Your task to perform on an android device: toggle pop-ups in chrome Image 0: 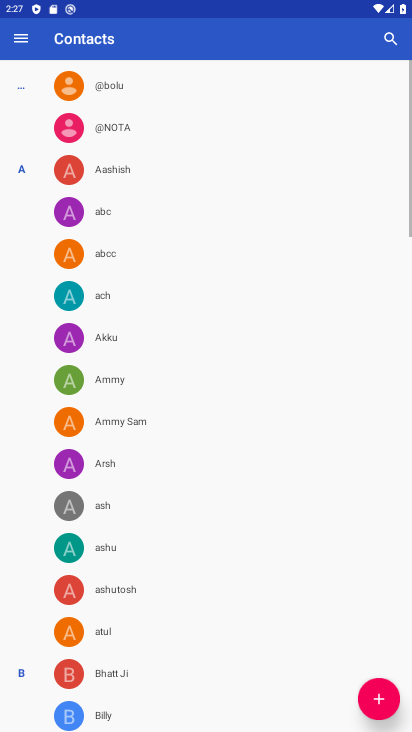
Step 0: press home button
Your task to perform on an android device: toggle pop-ups in chrome Image 1: 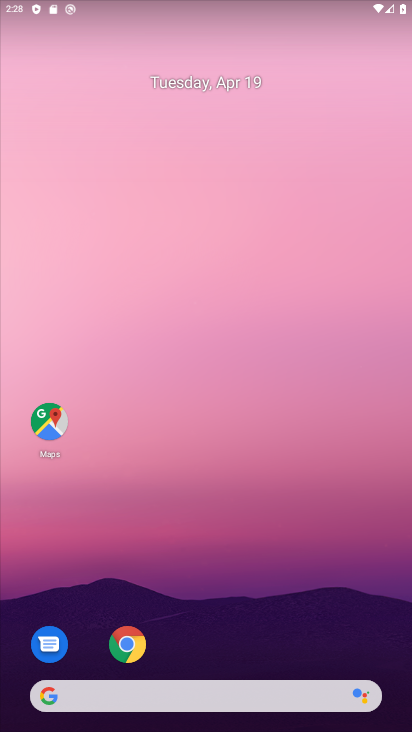
Step 1: drag from (289, 486) to (321, 23)
Your task to perform on an android device: toggle pop-ups in chrome Image 2: 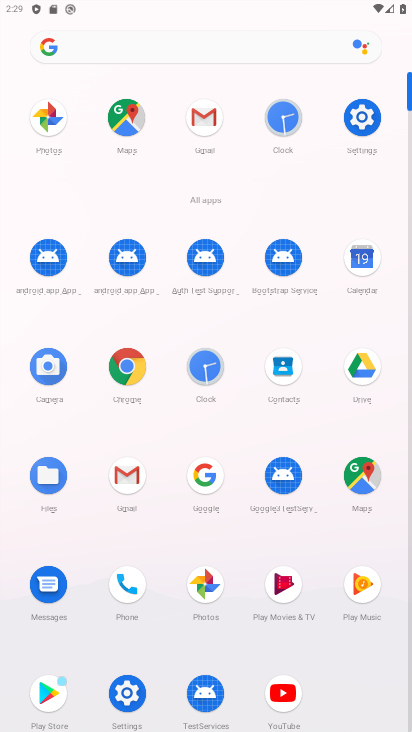
Step 2: click (125, 360)
Your task to perform on an android device: toggle pop-ups in chrome Image 3: 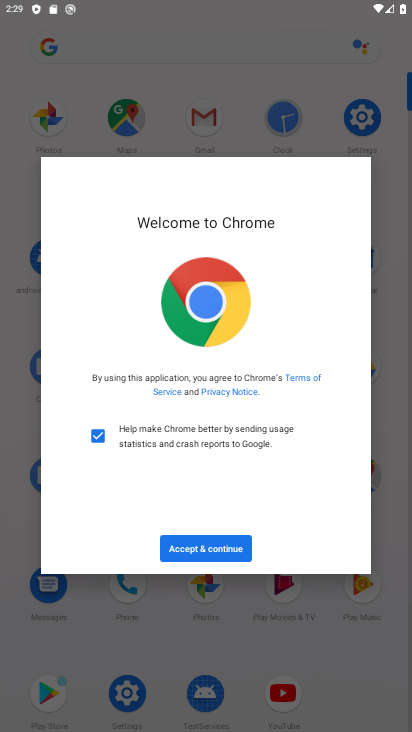
Step 3: click (230, 548)
Your task to perform on an android device: toggle pop-ups in chrome Image 4: 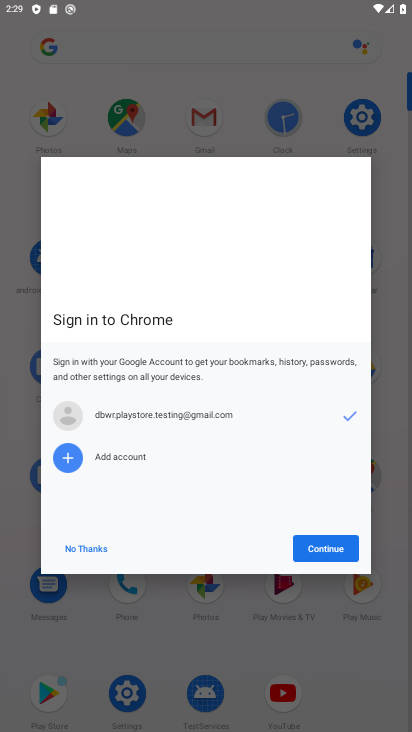
Step 4: click (329, 555)
Your task to perform on an android device: toggle pop-ups in chrome Image 5: 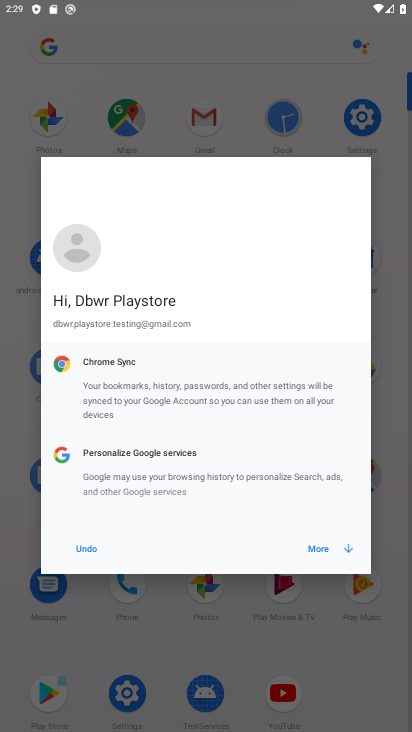
Step 5: click (330, 544)
Your task to perform on an android device: toggle pop-ups in chrome Image 6: 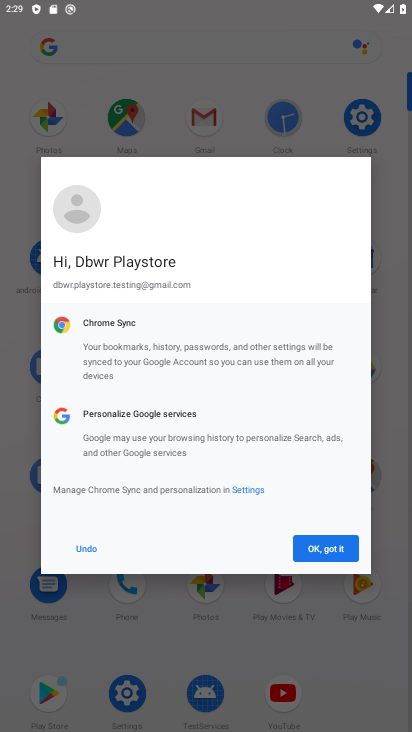
Step 6: click (330, 544)
Your task to perform on an android device: toggle pop-ups in chrome Image 7: 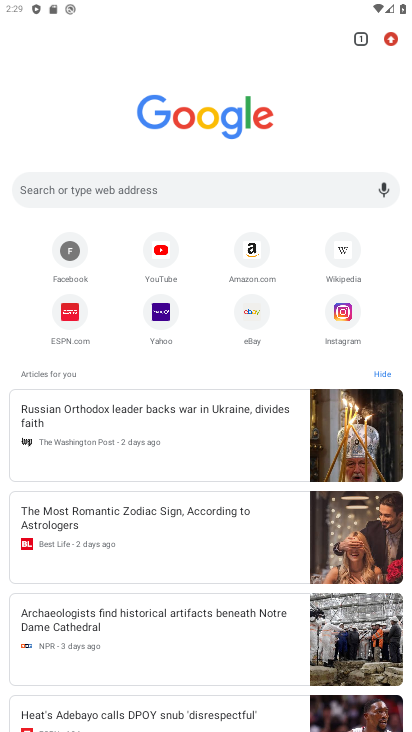
Step 7: click (401, 38)
Your task to perform on an android device: toggle pop-ups in chrome Image 8: 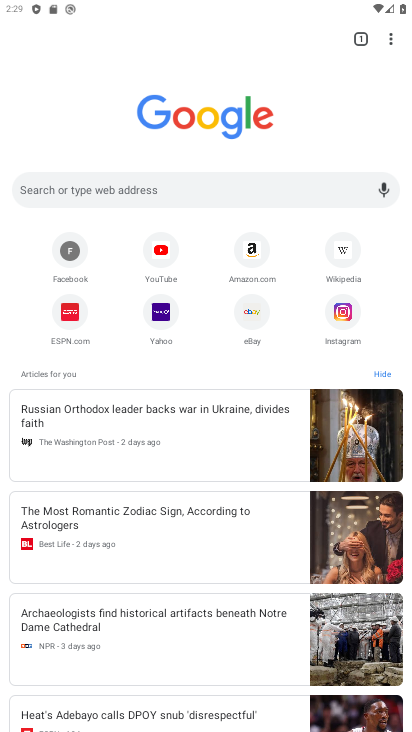
Step 8: click (392, 36)
Your task to perform on an android device: toggle pop-ups in chrome Image 9: 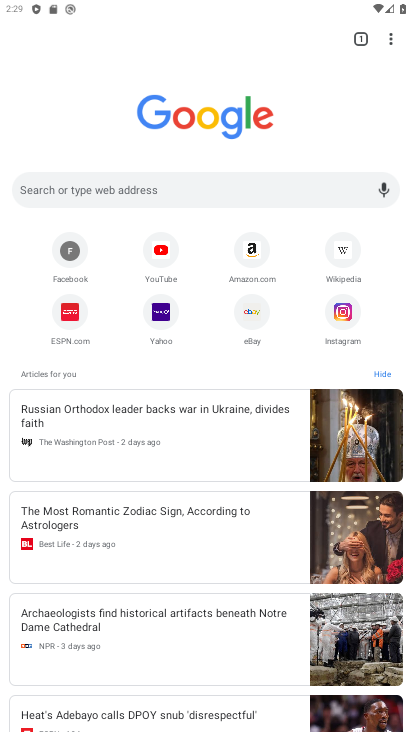
Step 9: drag from (389, 37) to (259, 369)
Your task to perform on an android device: toggle pop-ups in chrome Image 10: 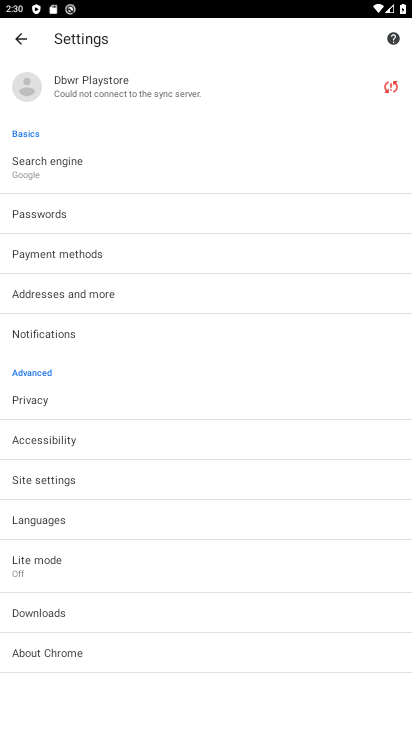
Step 10: click (71, 485)
Your task to perform on an android device: toggle pop-ups in chrome Image 11: 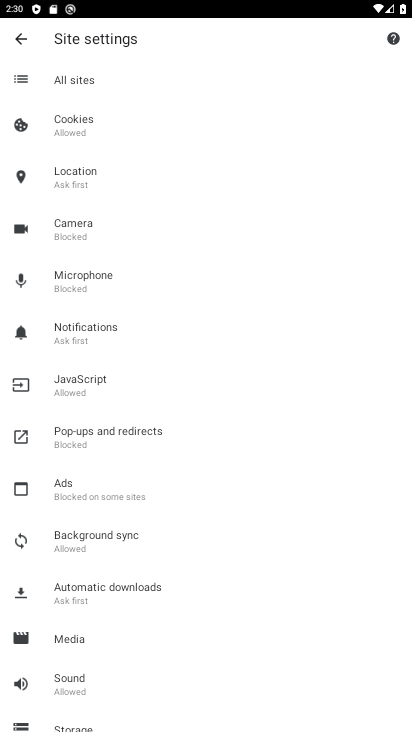
Step 11: click (139, 436)
Your task to perform on an android device: toggle pop-ups in chrome Image 12: 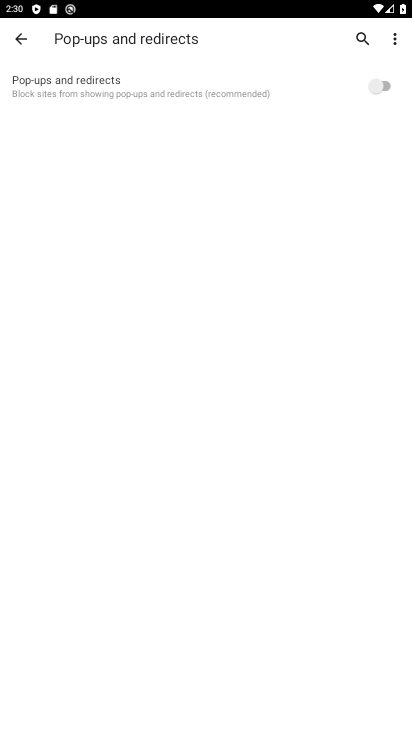
Step 12: click (207, 93)
Your task to perform on an android device: toggle pop-ups in chrome Image 13: 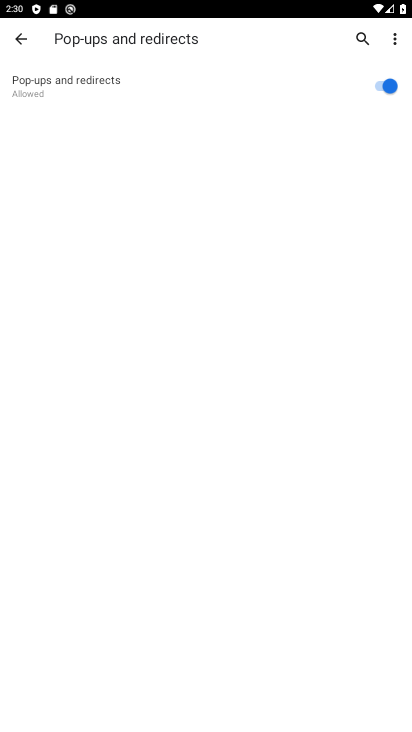
Step 13: task complete